Your task to perform on an android device: Is it going to rain today? Image 0: 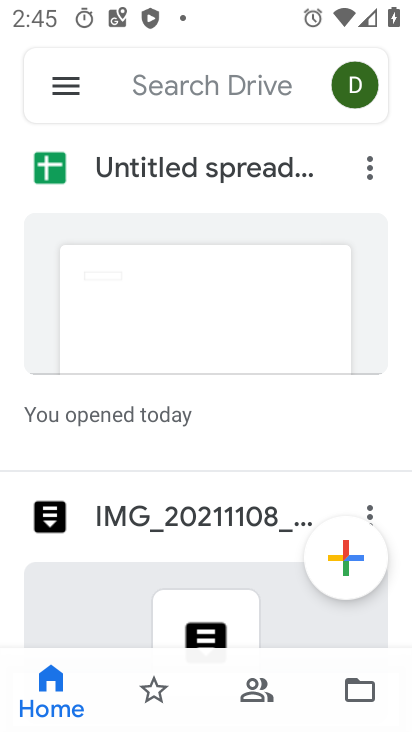
Step 0: press back button
Your task to perform on an android device: Is it going to rain today? Image 1: 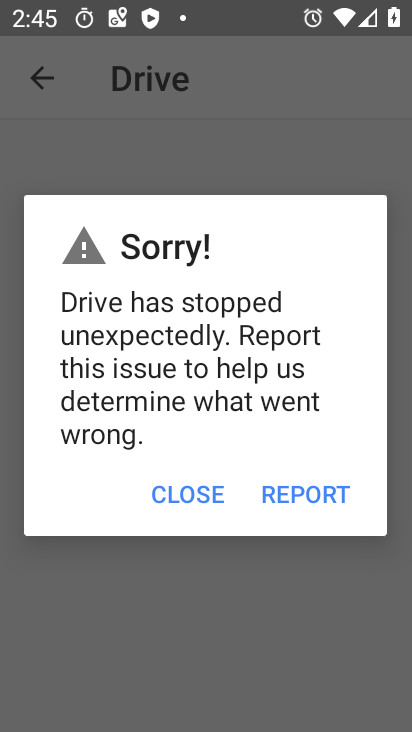
Step 1: press home button
Your task to perform on an android device: Is it going to rain today? Image 2: 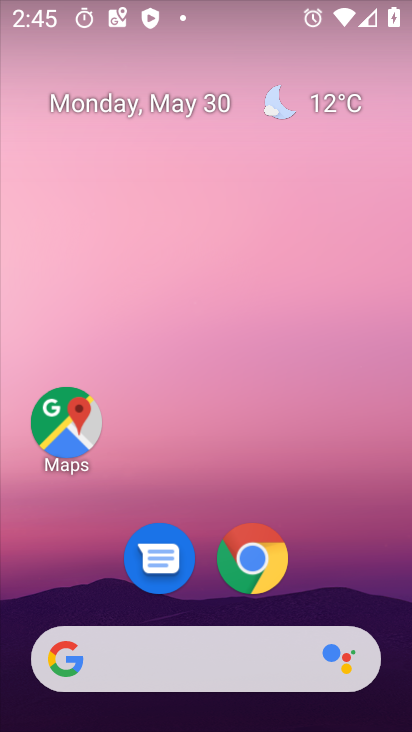
Step 2: click (273, 113)
Your task to perform on an android device: Is it going to rain today? Image 3: 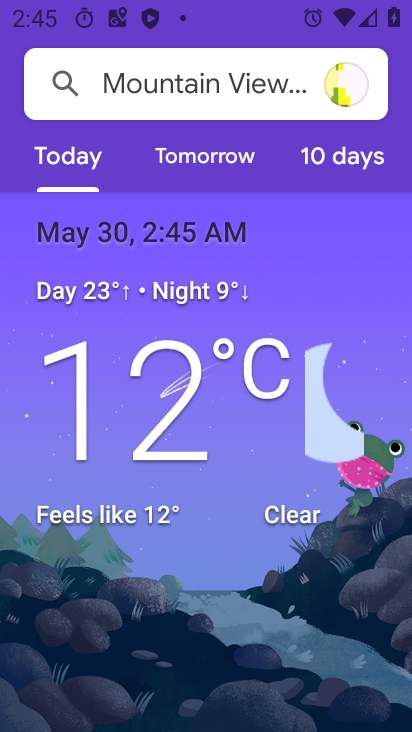
Step 3: task complete